Your task to perform on an android device: Open privacy settings Image 0: 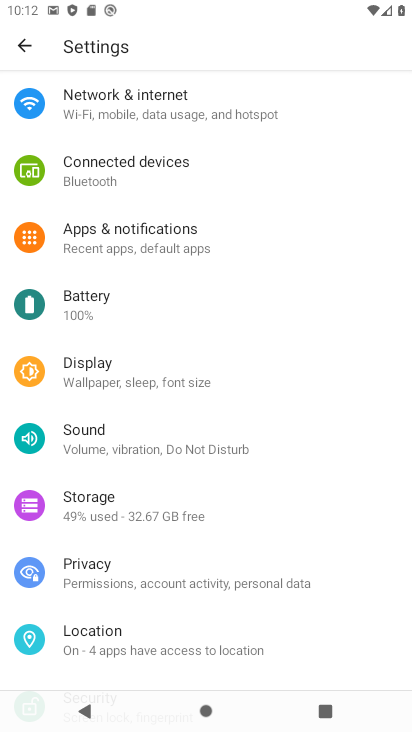
Step 0: press home button
Your task to perform on an android device: Open privacy settings Image 1: 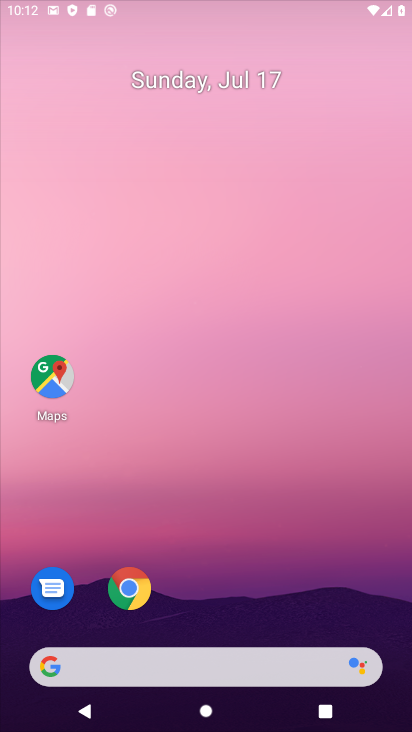
Step 1: drag from (193, 610) to (190, 0)
Your task to perform on an android device: Open privacy settings Image 2: 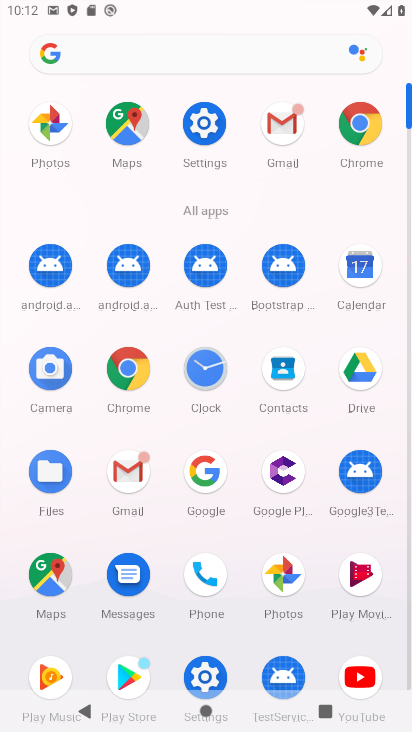
Step 2: click (208, 159)
Your task to perform on an android device: Open privacy settings Image 3: 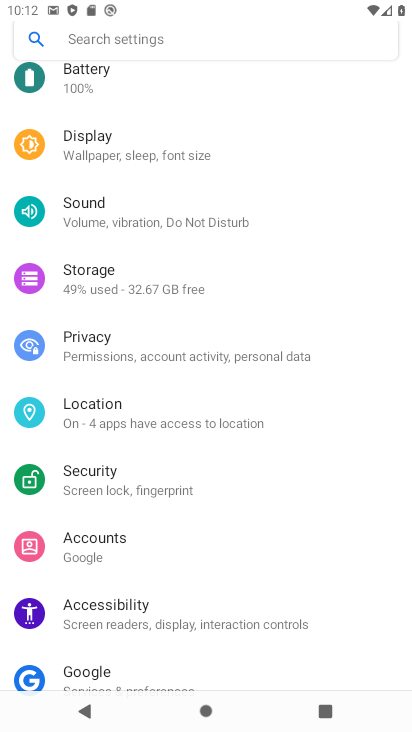
Step 3: click (93, 348)
Your task to perform on an android device: Open privacy settings Image 4: 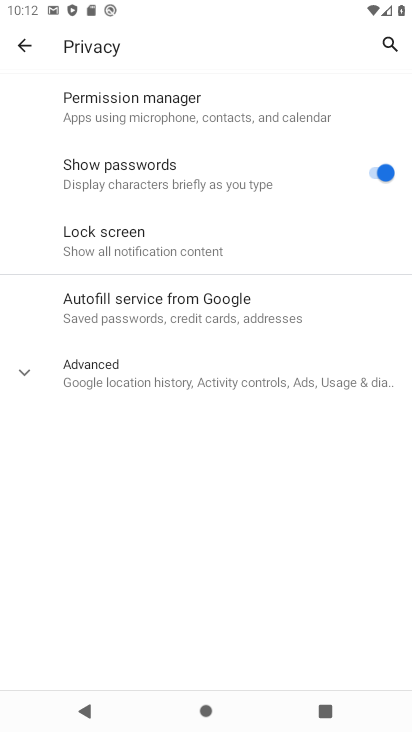
Step 4: task complete